Your task to perform on an android device: Open calendar and show me the fourth week of next month Image 0: 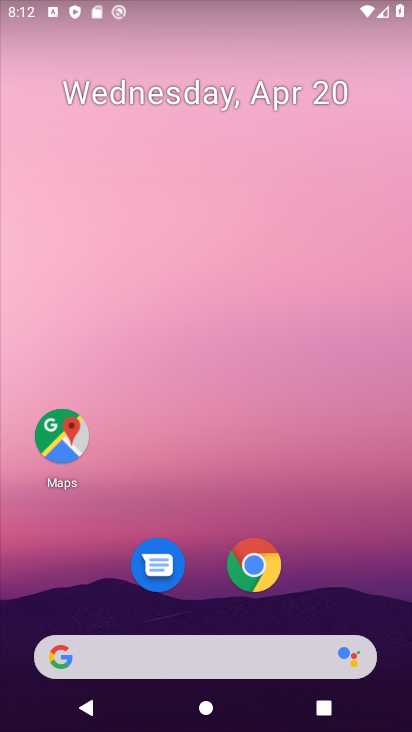
Step 0: click (350, 85)
Your task to perform on an android device: Open calendar and show me the fourth week of next month Image 1: 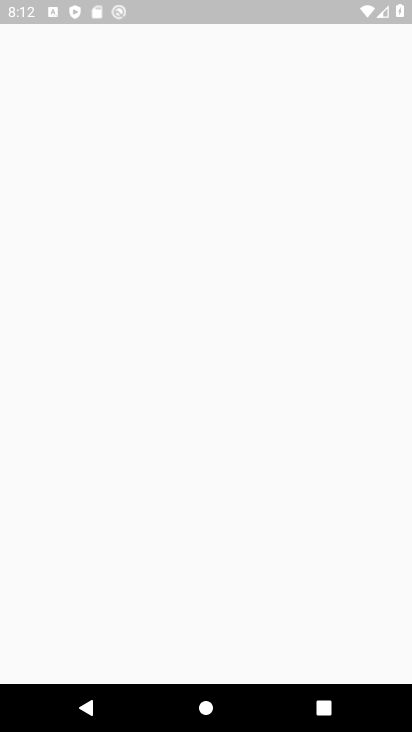
Step 1: press home button
Your task to perform on an android device: Open calendar and show me the fourth week of next month Image 2: 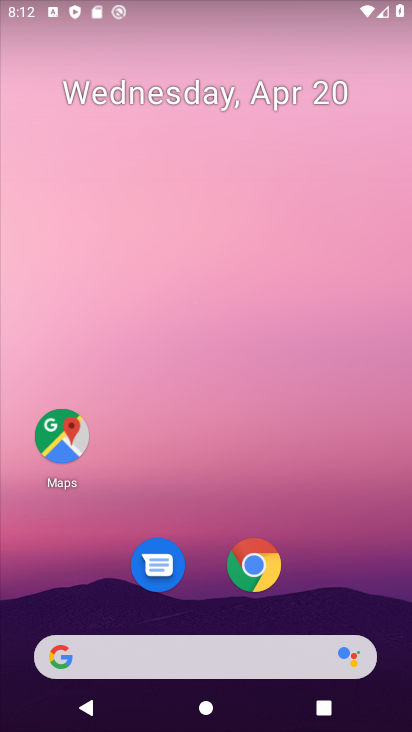
Step 2: drag from (320, 556) to (307, 15)
Your task to perform on an android device: Open calendar and show me the fourth week of next month Image 3: 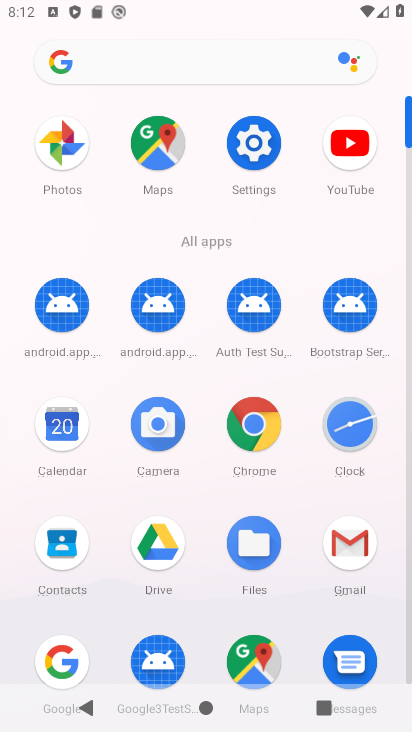
Step 3: click (58, 452)
Your task to perform on an android device: Open calendar and show me the fourth week of next month Image 4: 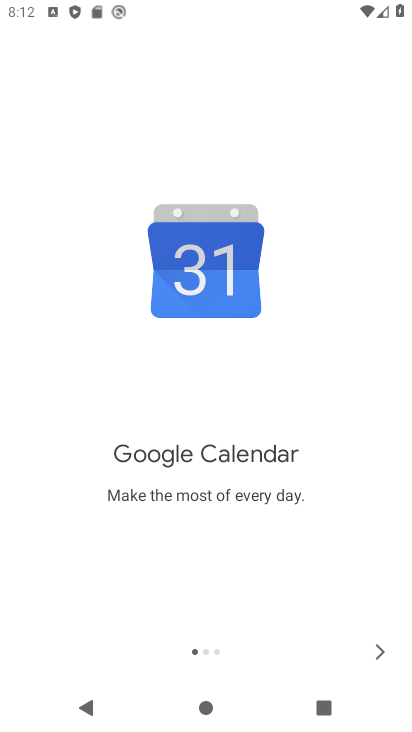
Step 4: click (375, 661)
Your task to perform on an android device: Open calendar and show me the fourth week of next month Image 5: 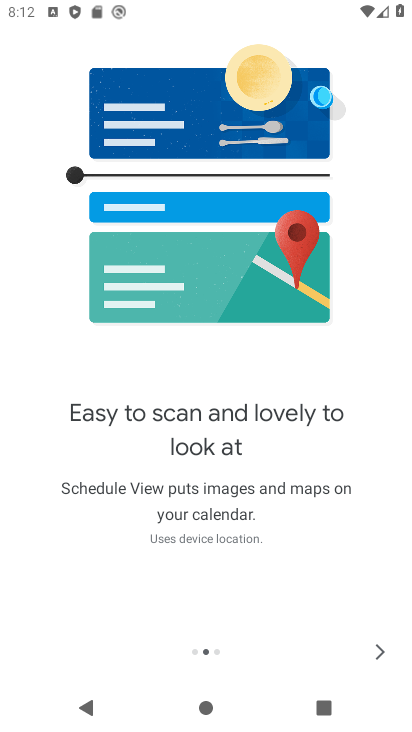
Step 5: click (375, 661)
Your task to perform on an android device: Open calendar and show me the fourth week of next month Image 6: 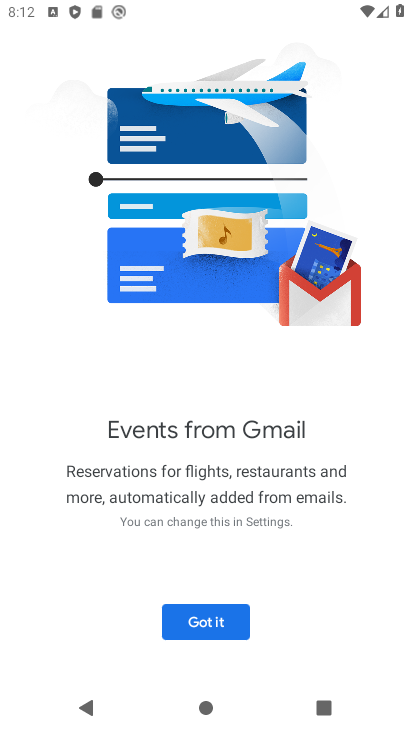
Step 6: click (217, 619)
Your task to perform on an android device: Open calendar and show me the fourth week of next month Image 7: 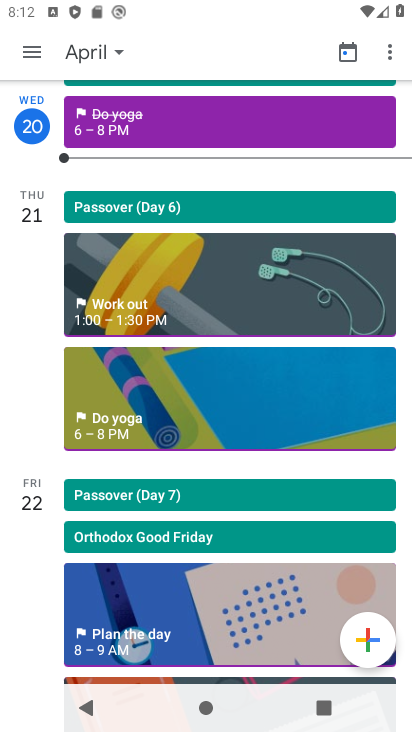
Step 7: click (85, 45)
Your task to perform on an android device: Open calendar and show me the fourth week of next month Image 8: 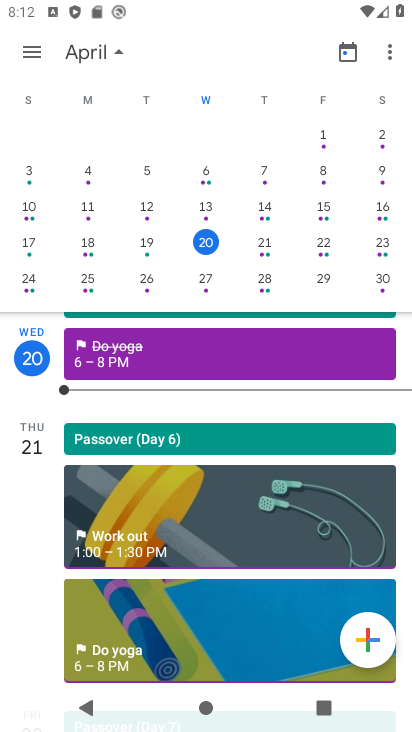
Step 8: drag from (327, 235) to (21, 224)
Your task to perform on an android device: Open calendar and show me the fourth week of next month Image 9: 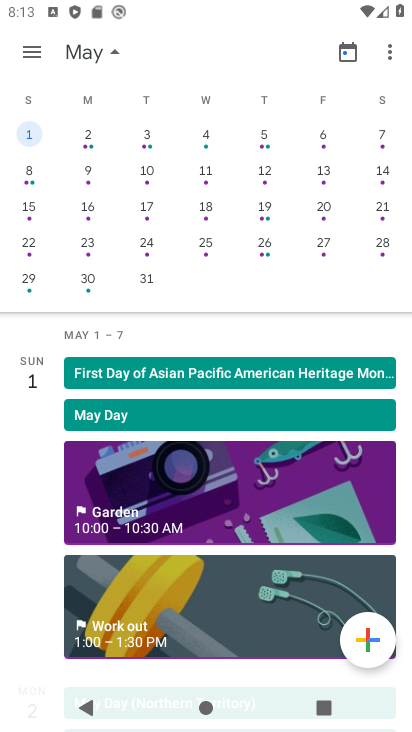
Step 9: click (380, 246)
Your task to perform on an android device: Open calendar and show me the fourth week of next month Image 10: 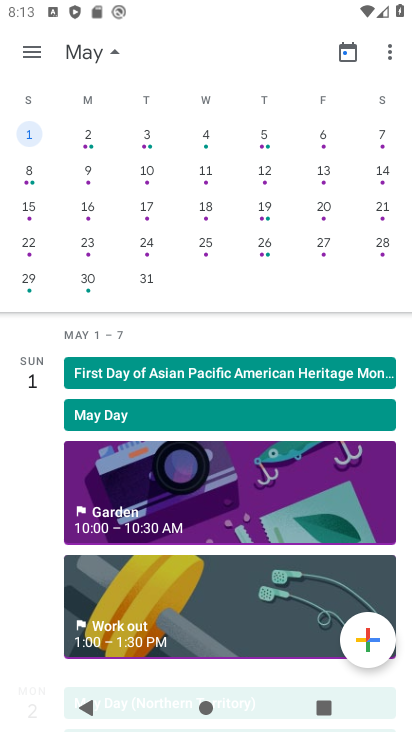
Step 10: click (381, 240)
Your task to perform on an android device: Open calendar and show me the fourth week of next month Image 11: 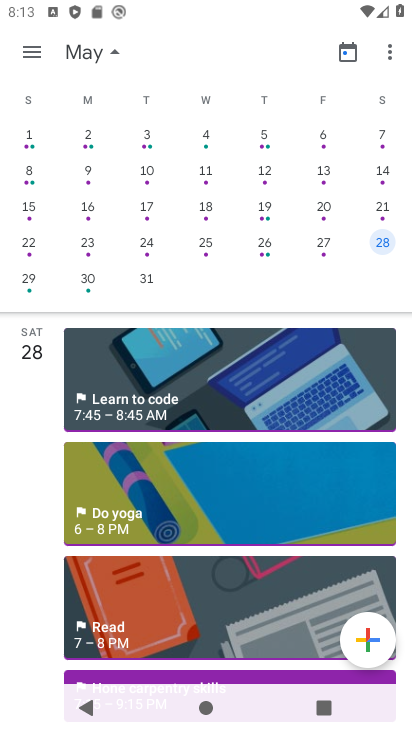
Step 11: task complete